Your task to perform on an android device: open app "Yahoo Mail" (install if not already installed) and go to login screen Image 0: 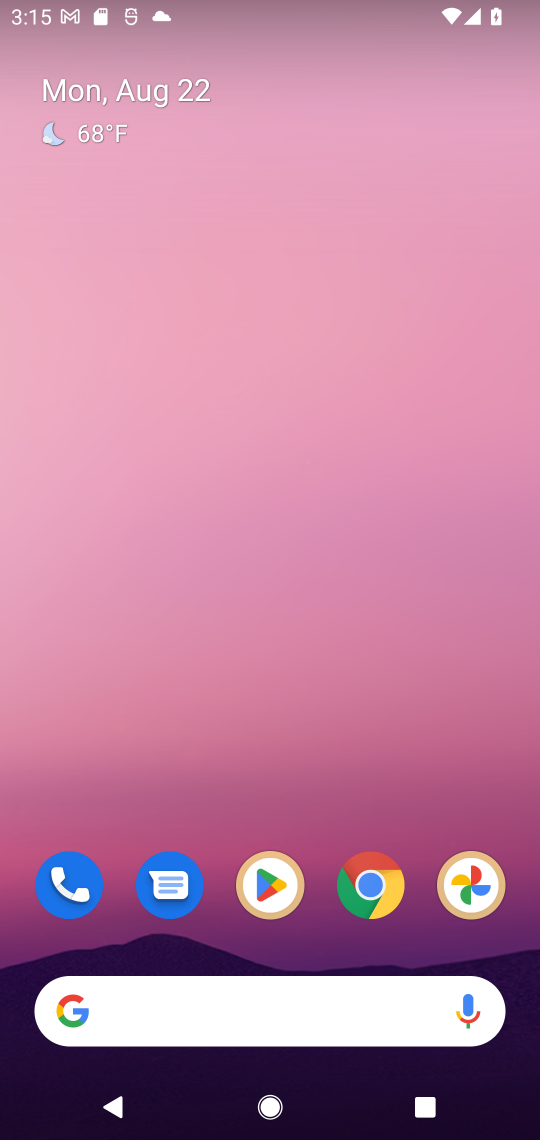
Step 0: press home button
Your task to perform on an android device: open app "Yahoo Mail" (install if not already installed) and go to login screen Image 1: 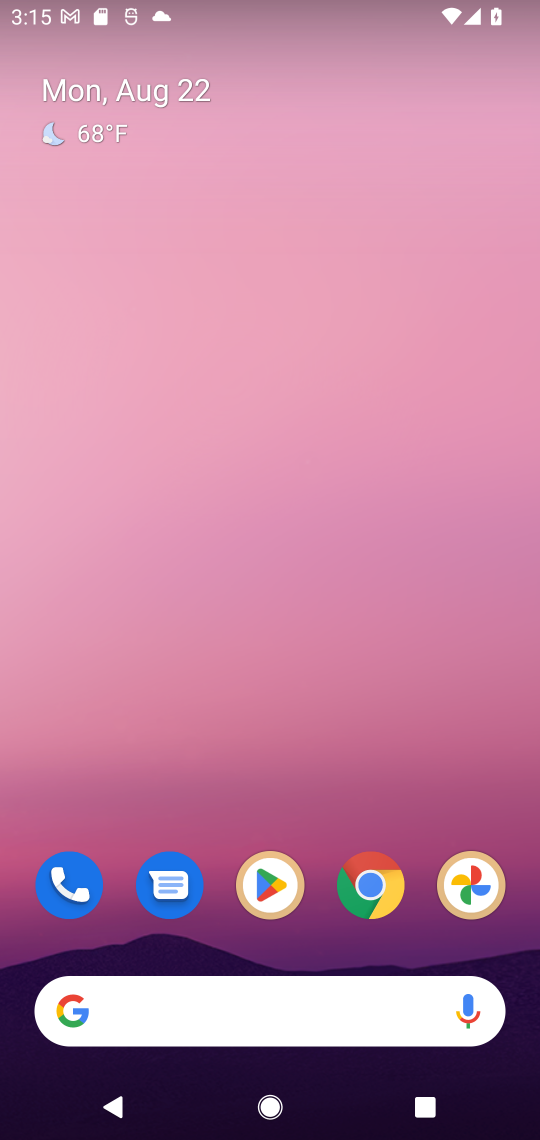
Step 1: click (277, 875)
Your task to perform on an android device: open app "Yahoo Mail" (install if not already installed) and go to login screen Image 2: 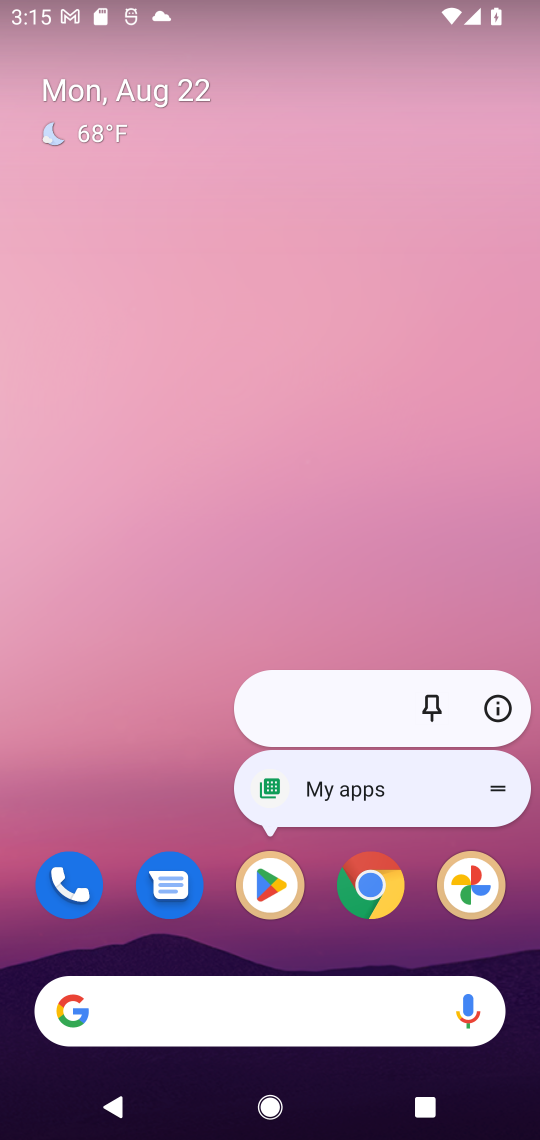
Step 2: click (277, 875)
Your task to perform on an android device: open app "Yahoo Mail" (install if not already installed) and go to login screen Image 3: 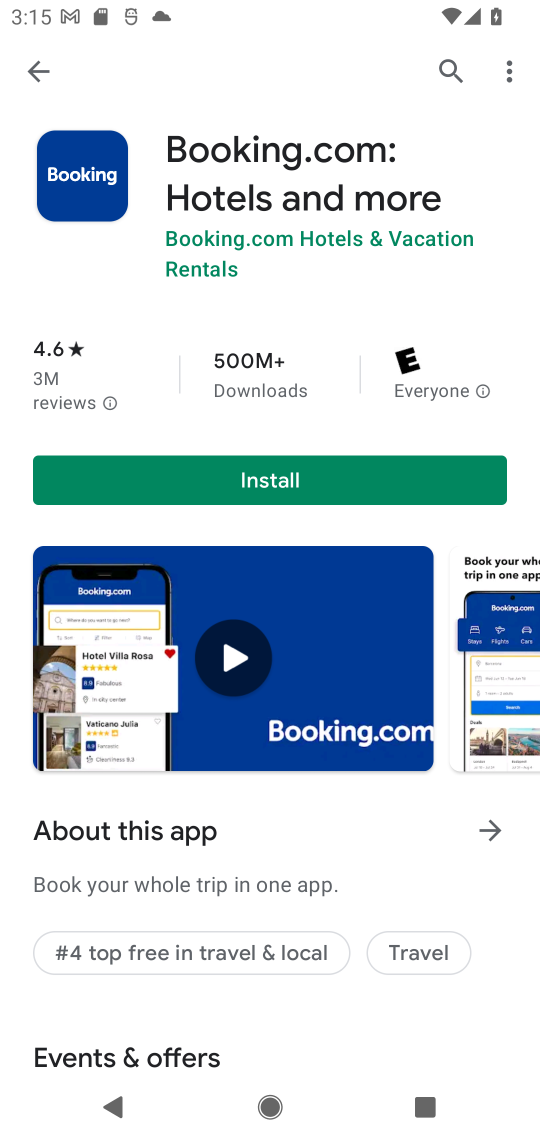
Step 3: click (448, 55)
Your task to perform on an android device: open app "Yahoo Mail" (install if not already installed) and go to login screen Image 4: 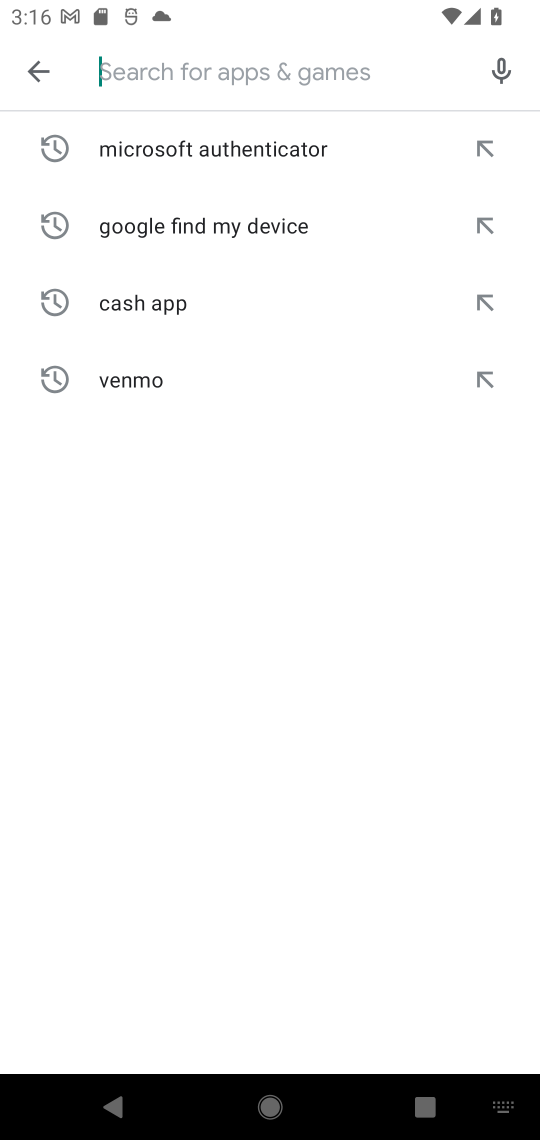
Step 4: type "Yahoo Mail"
Your task to perform on an android device: open app "Yahoo Mail" (install if not already installed) and go to login screen Image 5: 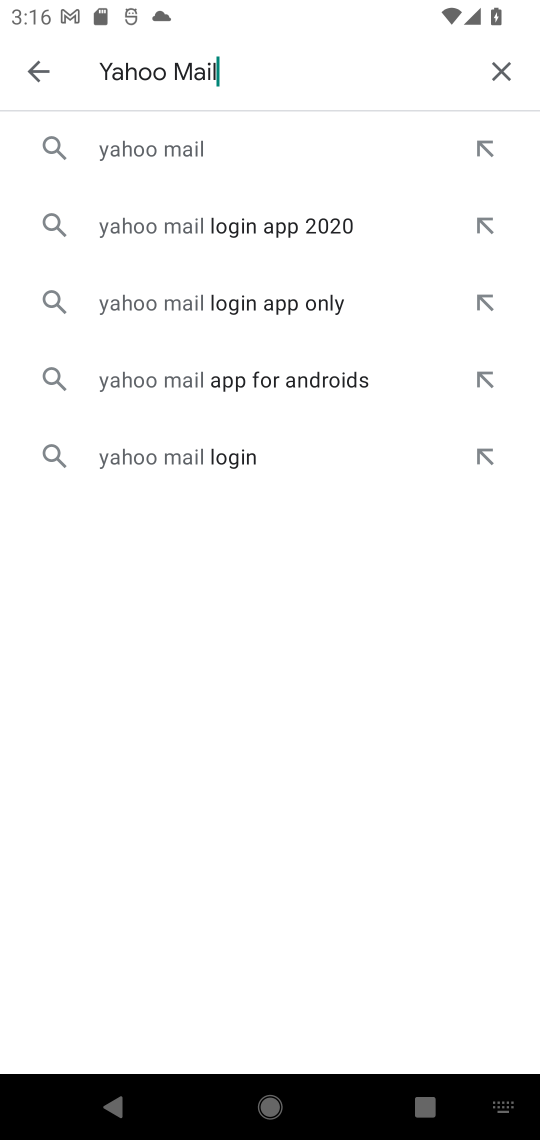
Step 5: click (121, 149)
Your task to perform on an android device: open app "Yahoo Mail" (install if not already installed) and go to login screen Image 6: 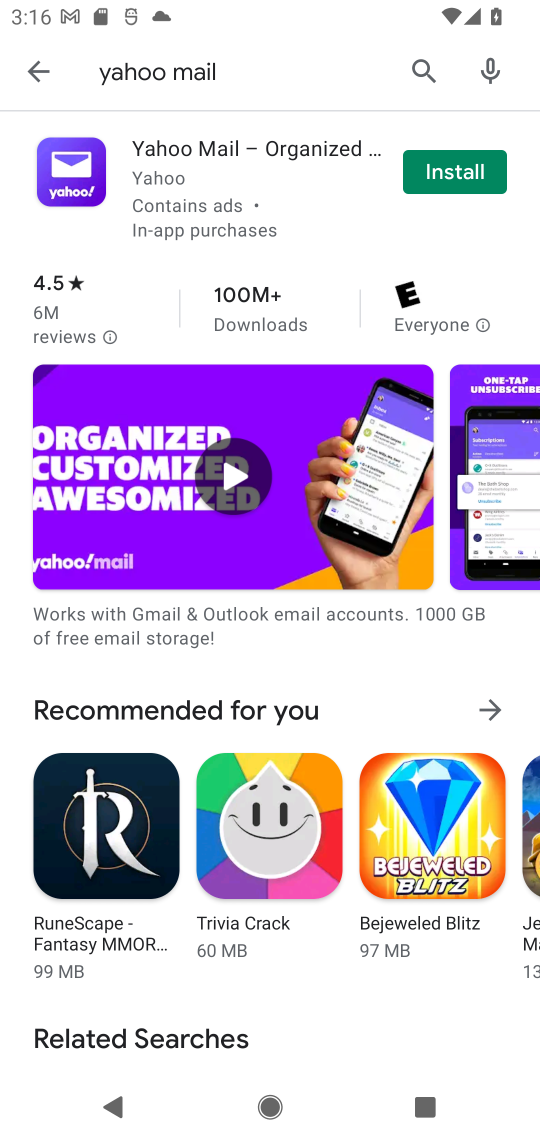
Step 6: click (462, 164)
Your task to perform on an android device: open app "Yahoo Mail" (install if not already installed) and go to login screen Image 7: 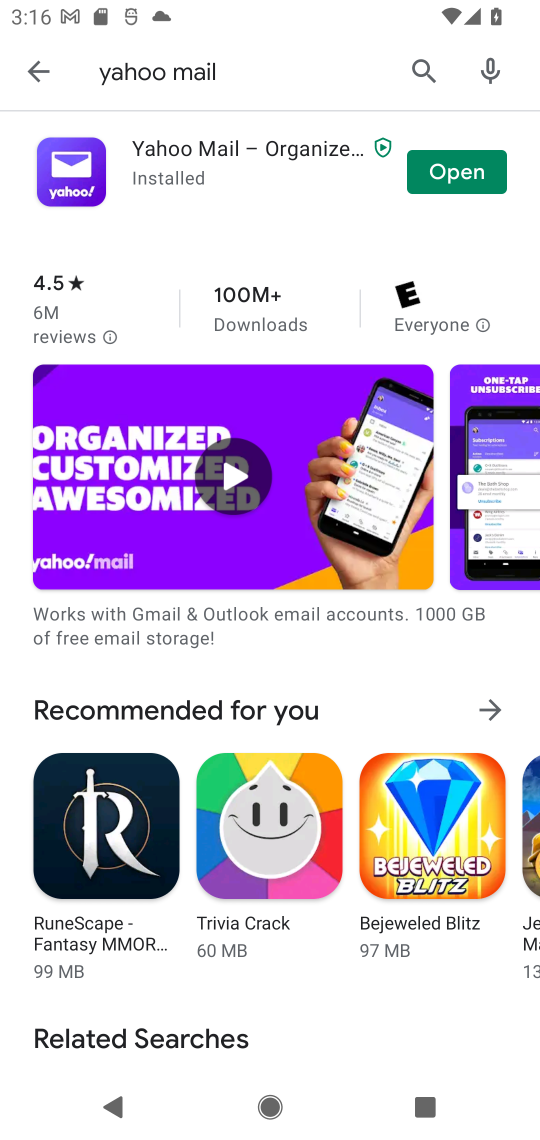
Step 7: click (462, 164)
Your task to perform on an android device: open app "Yahoo Mail" (install if not already installed) and go to login screen Image 8: 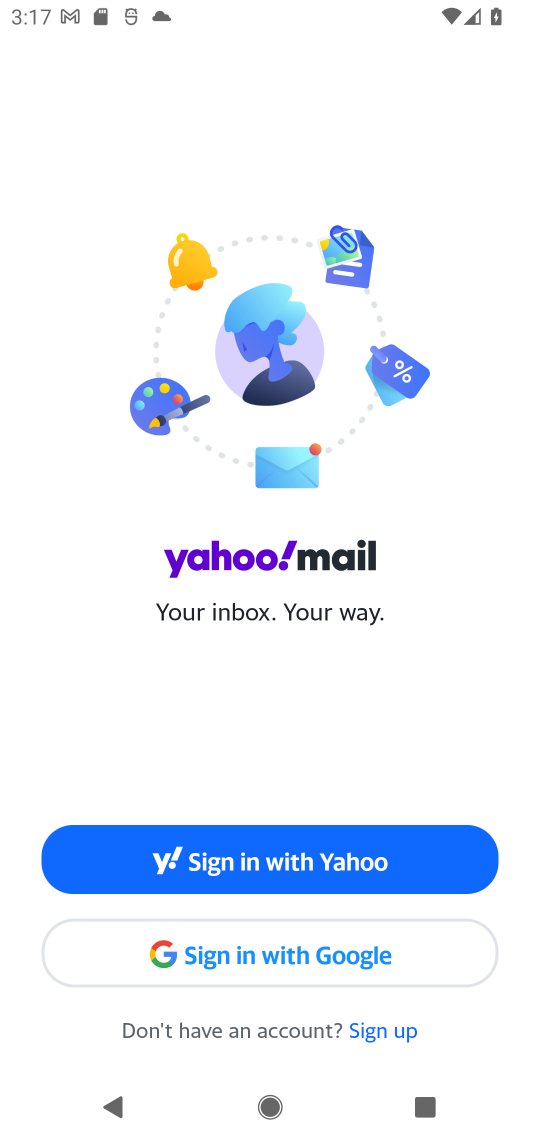
Step 8: click (281, 962)
Your task to perform on an android device: open app "Yahoo Mail" (install if not already installed) and go to login screen Image 9: 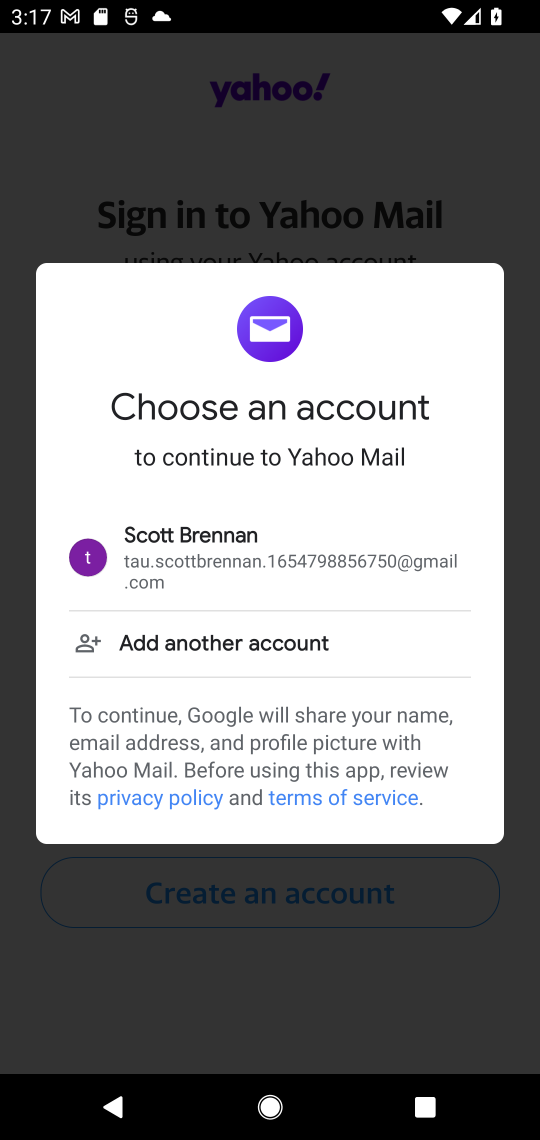
Step 9: click (283, 527)
Your task to perform on an android device: open app "Yahoo Mail" (install if not already installed) and go to login screen Image 10: 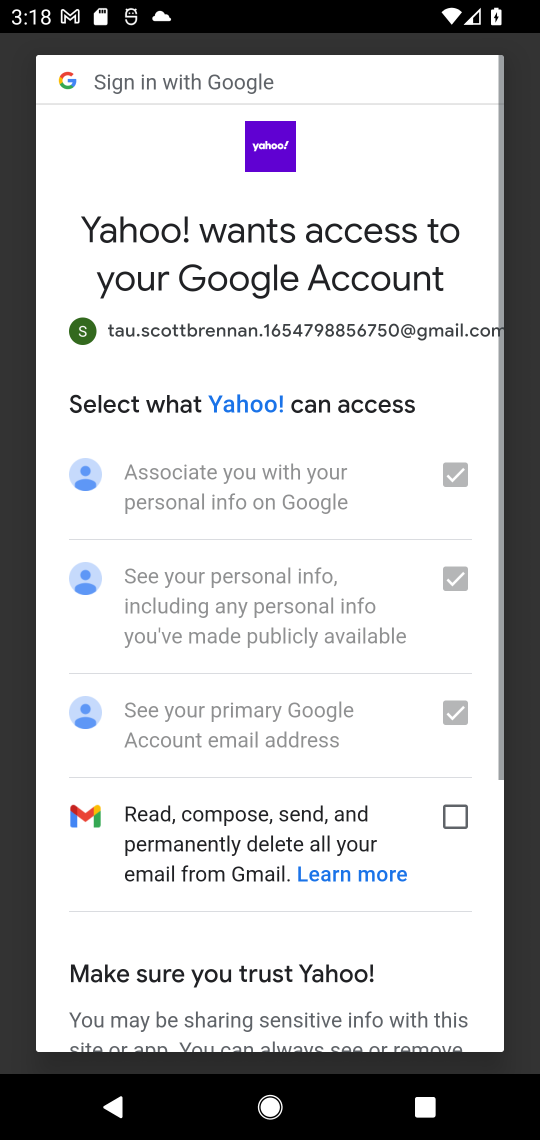
Step 10: drag from (252, 922) to (430, 265)
Your task to perform on an android device: open app "Yahoo Mail" (install if not already installed) and go to login screen Image 11: 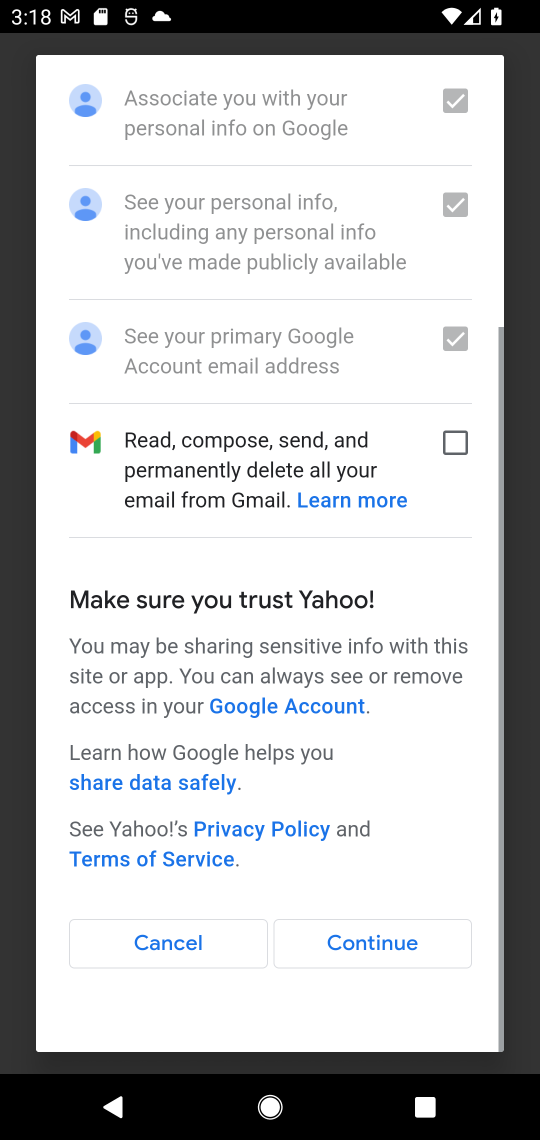
Step 11: click (342, 943)
Your task to perform on an android device: open app "Yahoo Mail" (install if not already installed) and go to login screen Image 12: 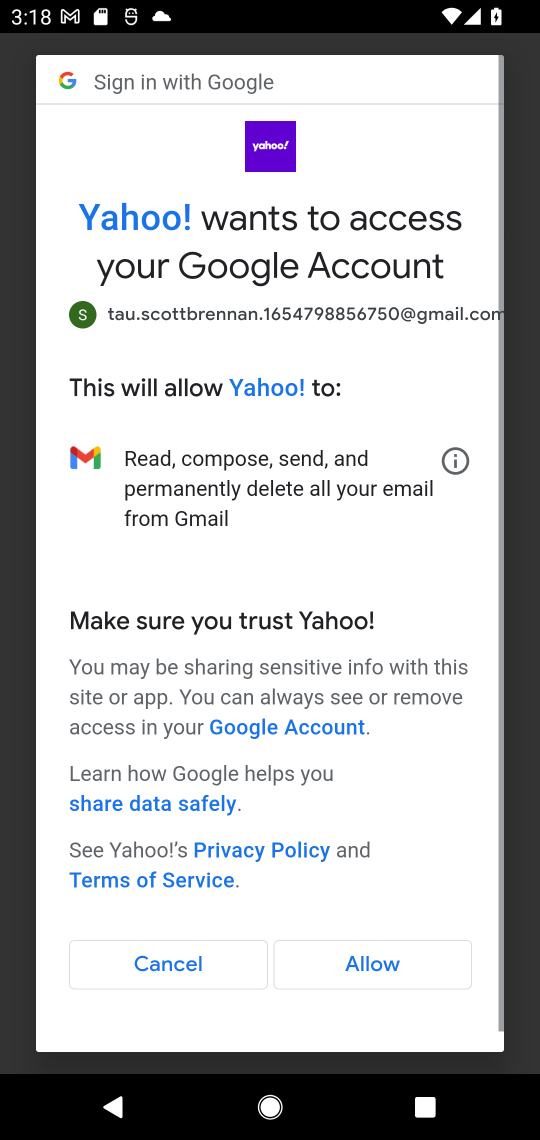
Step 12: click (380, 956)
Your task to perform on an android device: open app "Yahoo Mail" (install if not already installed) and go to login screen Image 13: 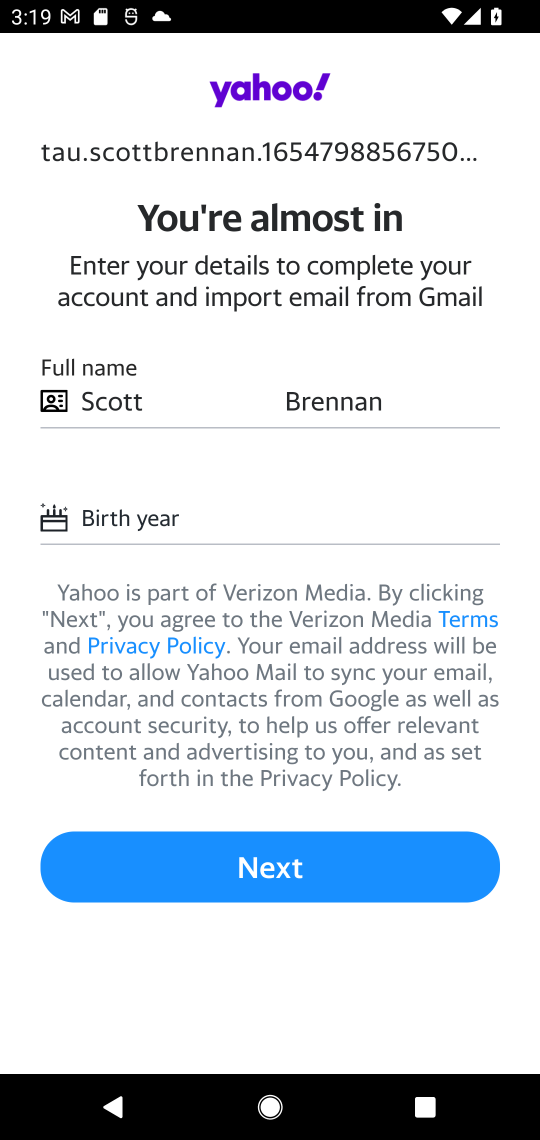
Step 13: click (261, 874)
Your task to perform on an android device: open app "Yahoo Mail" (install if not already installed) and go to login screen Image 14: 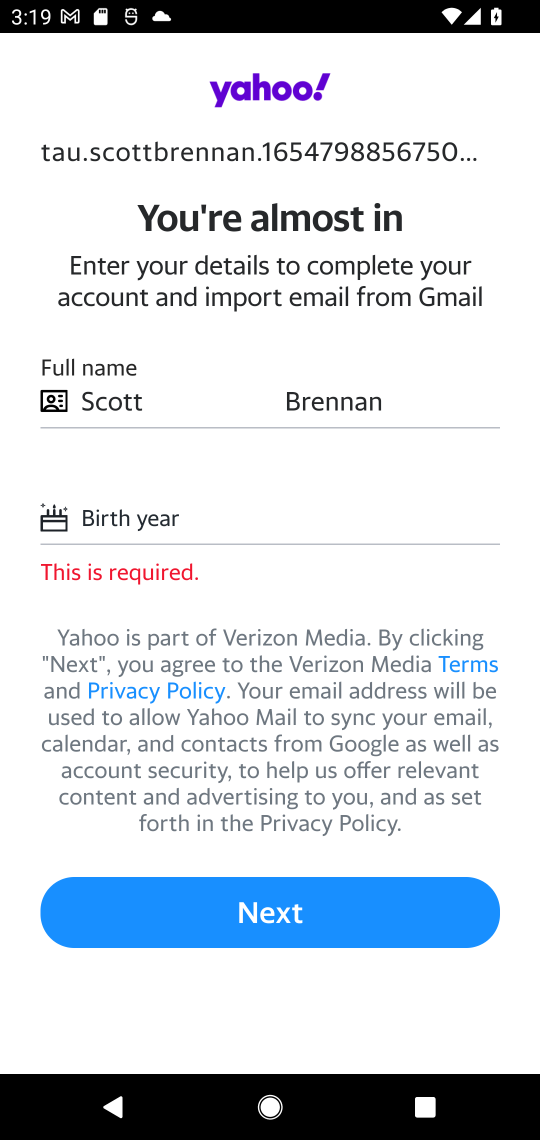
Step 14: task complete